Your task to perform on an android device: find snoozed emails in the gmail app Image 0: 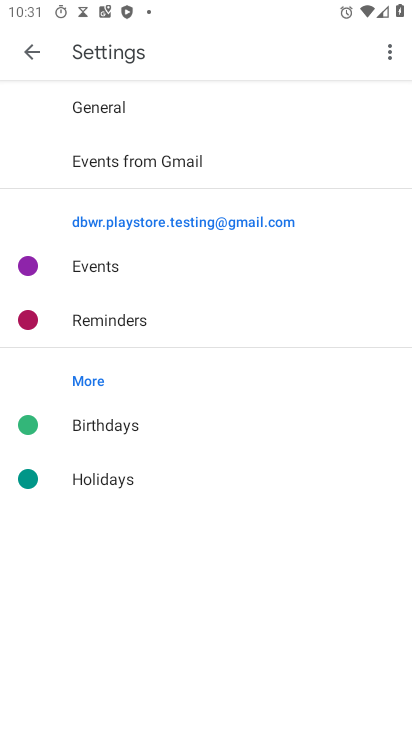
Step 0: press home button
Your task to perform on an android device: find snoozed emails in the gmail app Image 1: 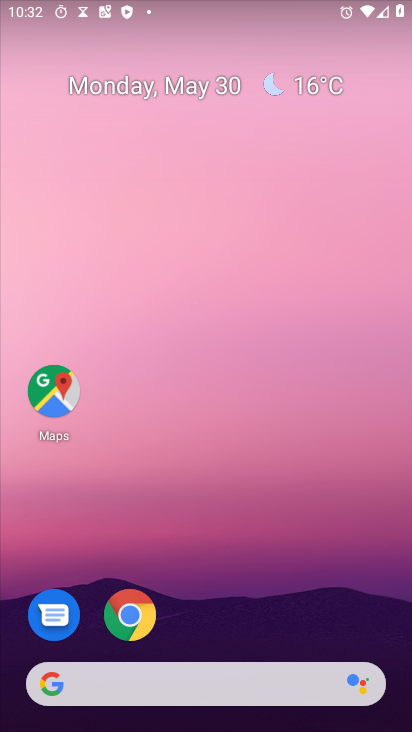
Step 1: drag from (325, 552) to (311, 49)
Your task to perform on an android device: find snoozed emails in the gmail app Image 2: 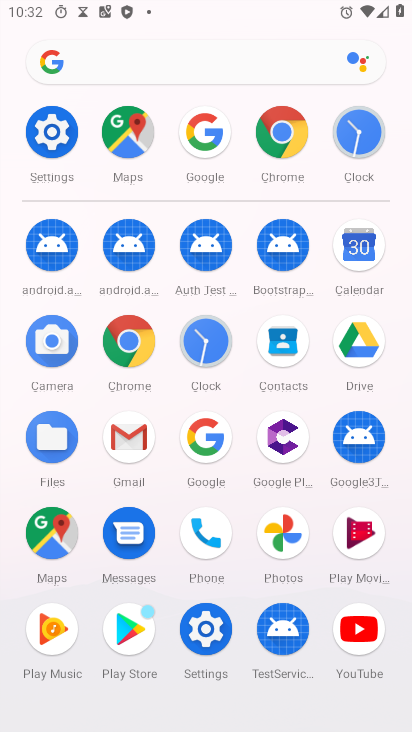
Step 2: click (124, 445)
Your task to perform on an android device: find snoozed emails in the gmail app Image 3: 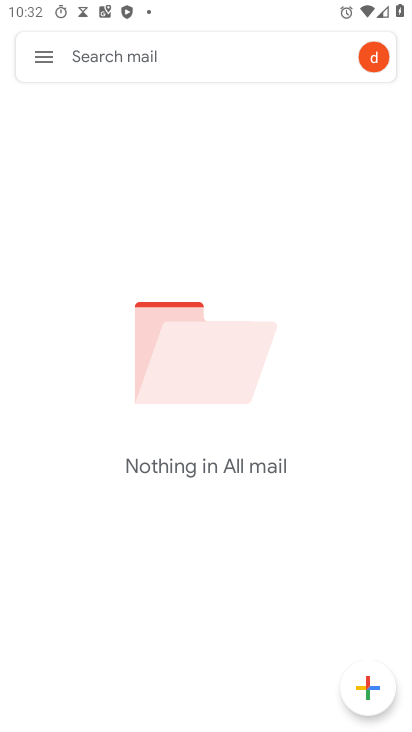
Step 3: click (46, 53)
Your task to perform on an android device: find snoozed emails in the gmail app Image 4: 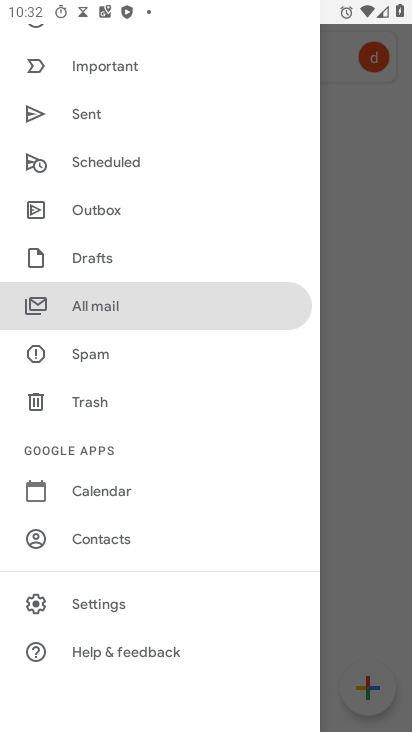
Step 4: drag from (117, 170) to (157, 542)
Your task to perform on an android device: find snoozed emails in the gmail app Image 5: 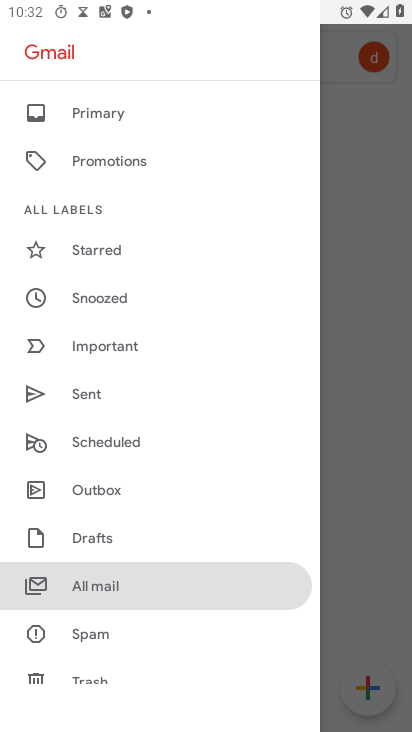
Step 5: drag from (171, 536) to (208, 102)
Your task to perform on an android device: find snoozed emails in the gmail app Image 6: 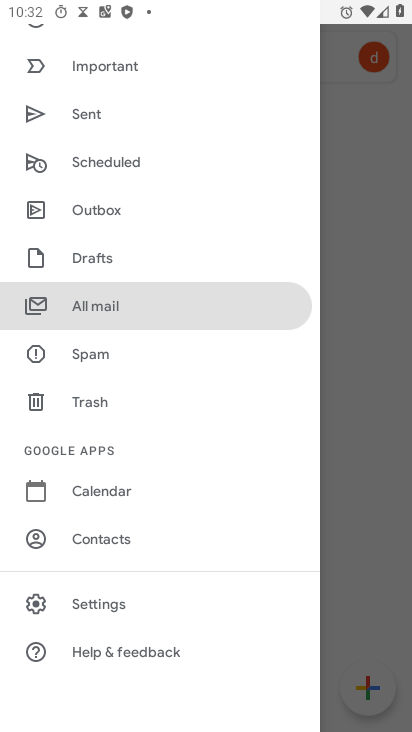
Step 6: drag from (149, 202) to (244, 668)
Your task to perform on an android device: find snoozed emails in the gmail app Image 7: 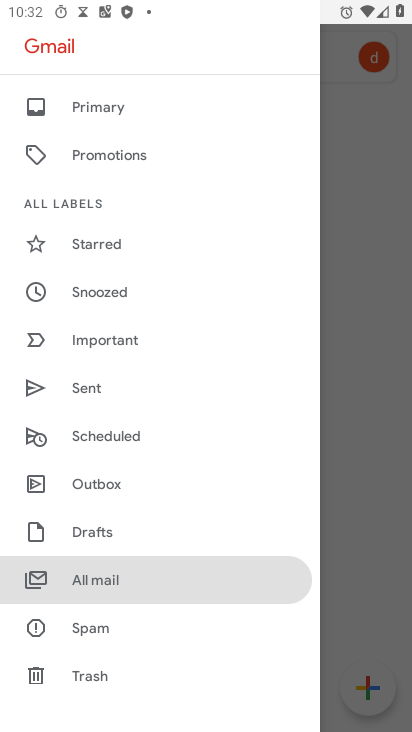
Step 7: drag from (104, 201) to (169, 520)
Your task to perform on an android device: find snoozed emails in the gmail app Image 8: 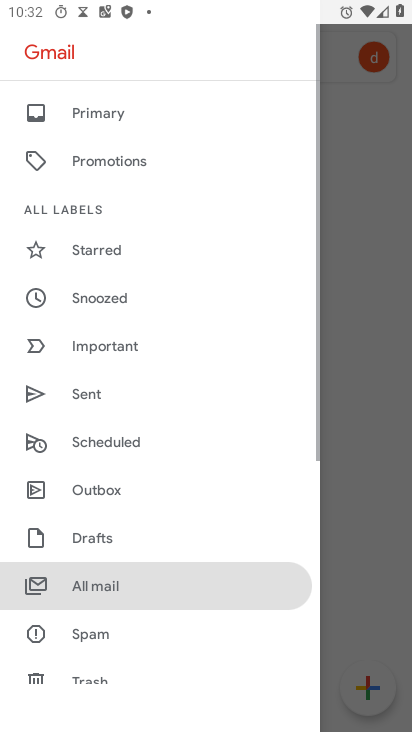
Step 8: click (100, 307)
Your task to perform on an android device: find snoozed emails in the gmail app Image 9: 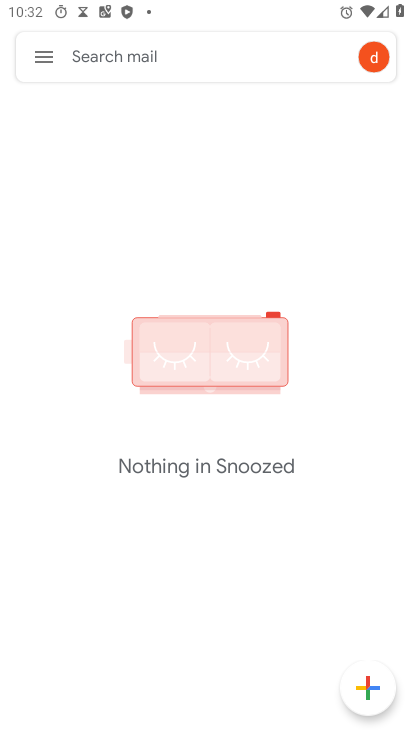
Step 9: task complete